Your task to perform on an android device: open the mobile data screen to see how much data has been used Image 0: 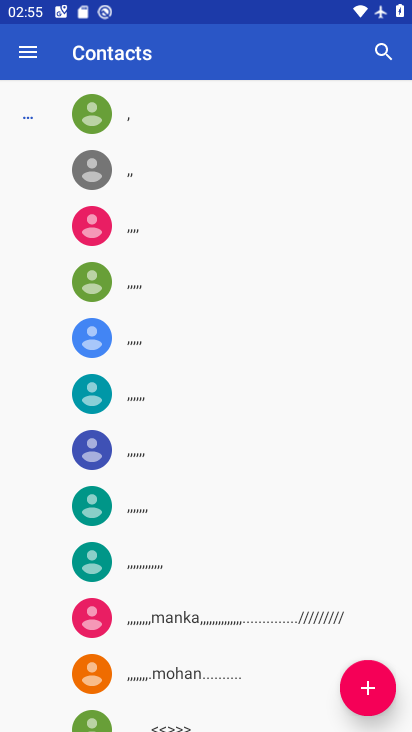
Step 0: press back button
Your task to perform on an android device: open the mobile data screen to see how much data has been used Image 1: 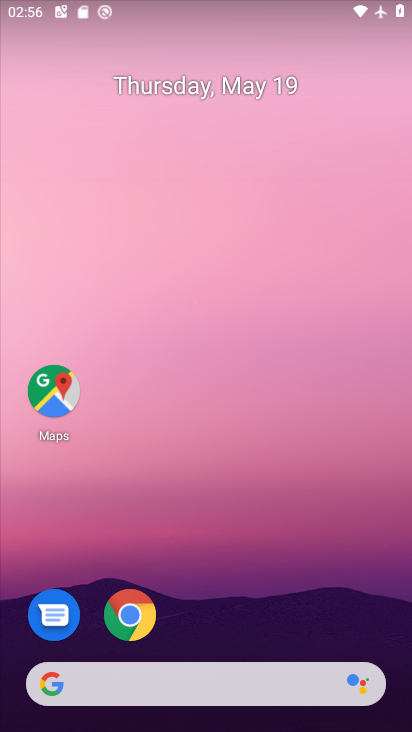
Step 1: drag from (243, 569) to (209, 23)
Your task to perform on an android device: open the mobile data screen to see how much data has been used Image 2: 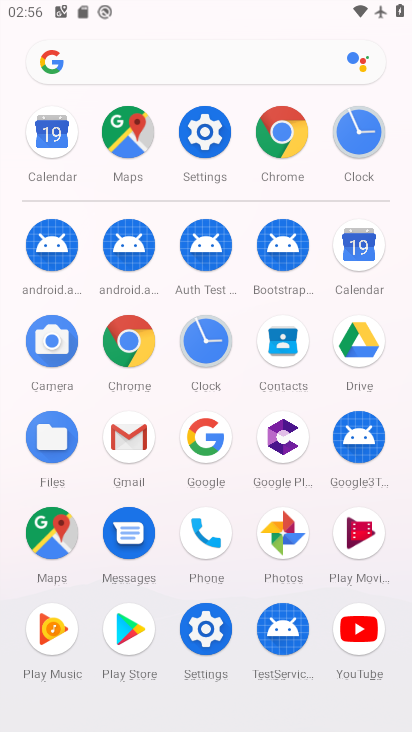
Step 2: drag from (16, 548) to (27, 187)
Your task to perform on an android device: open the mobile data screen to see how much data has been used Image 3: 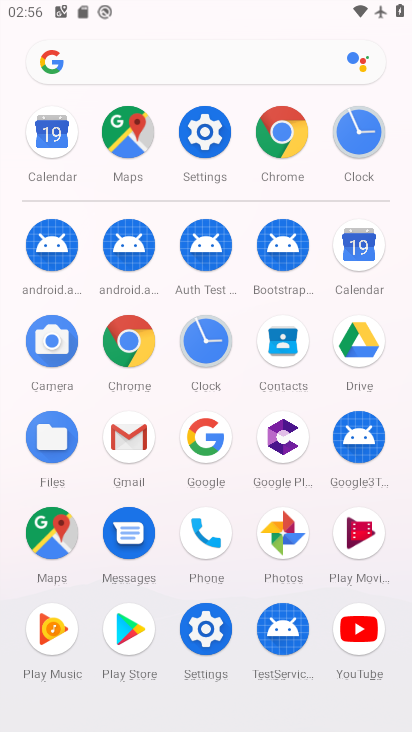
Step 3: click (206, 624)
Your task to perform on an android device: open the mobile data screen to see how much data has been used Image 4: 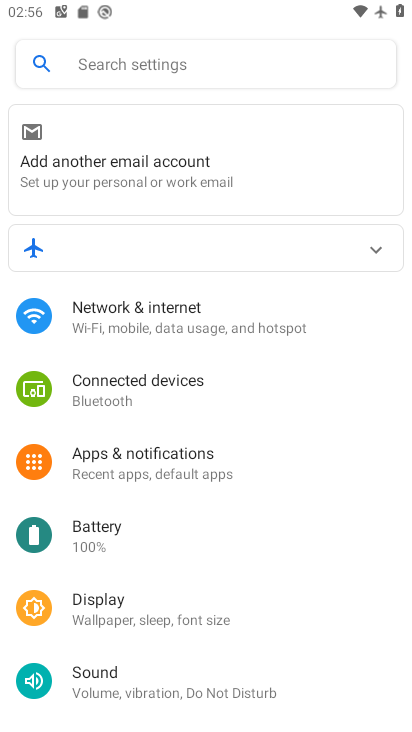
Step 4: click (155, 318)
Your task to perform on an android device: open the mobile data screen to see how much data has been used Image 5: 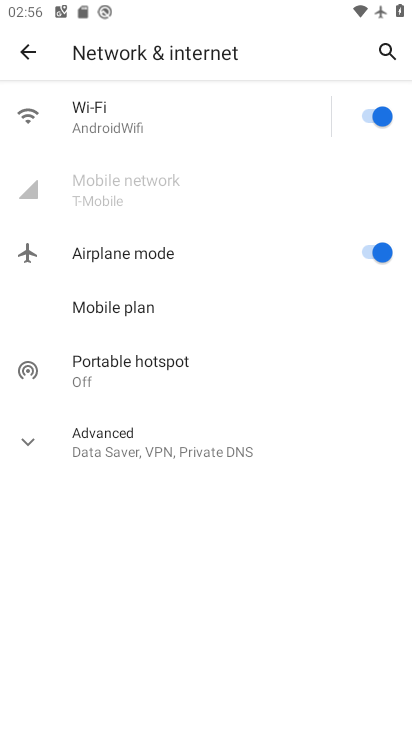
Step 5: click (38, 436)
Your task to perform on an android device: open the mobile data screen to see how much data has been used Image 6: 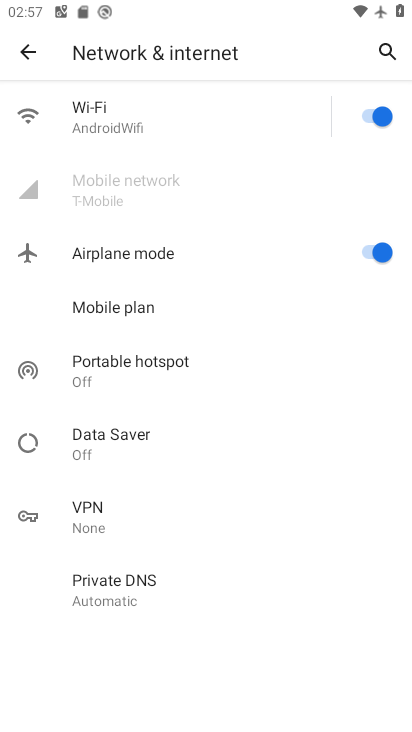
Step 6: task complete